Your task to perform on an android device: What's the weather today? Image 0: 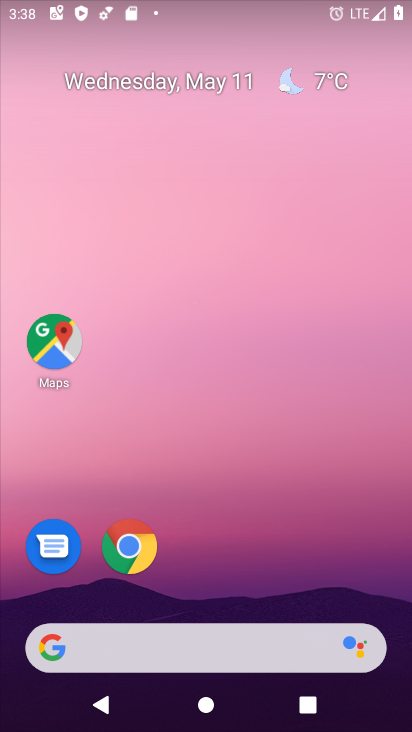
Step 0: drag from (291, 631) to (317, 53)
Your task to perform on an android device: What's the weather today? Image 1: 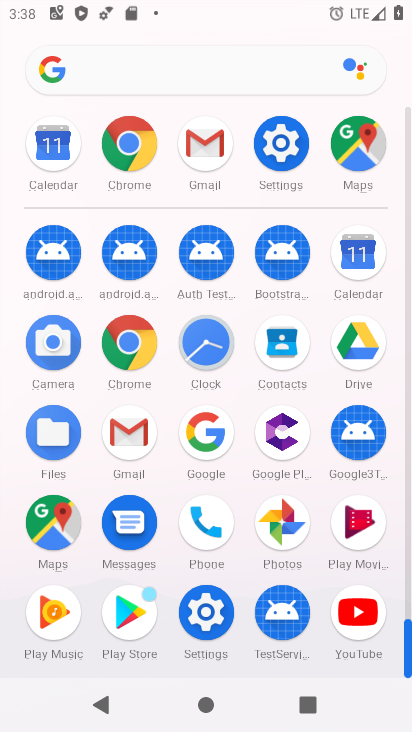
Step 1: click (133, 348)
Your task to perform on an android device: What's the weather today? Image 2: 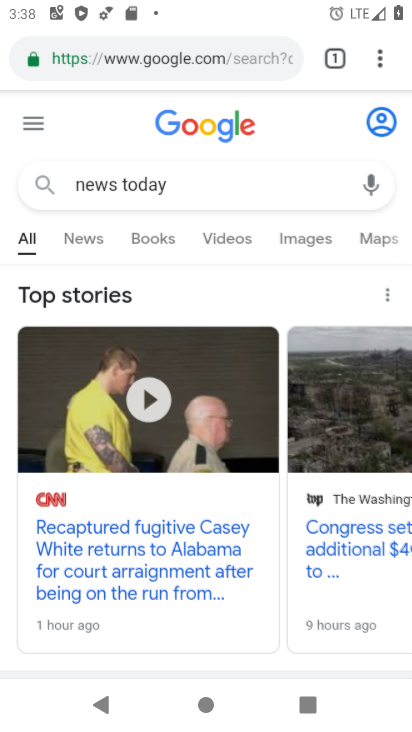
Step 2: click (254, 57)
Your task to perform on an android device: What's the weather today? Image 3: 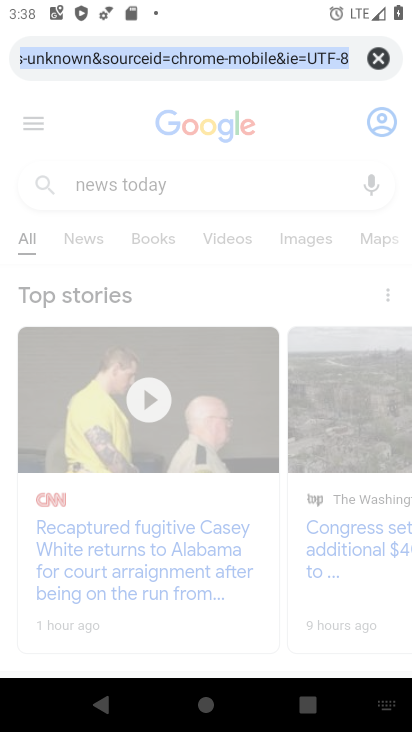
Step 3: click (377, 63)
Your task to perform on an android device: What's the weather today? Image 4: 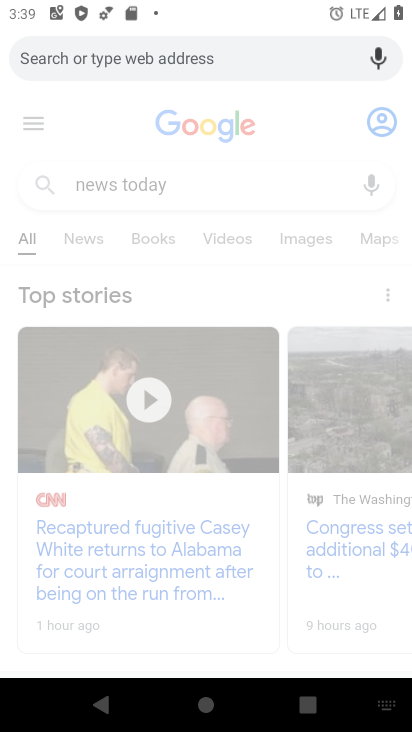
Step 4: click (186, 73)
Your task to perform on an android device: What's the weather today? Image 5: 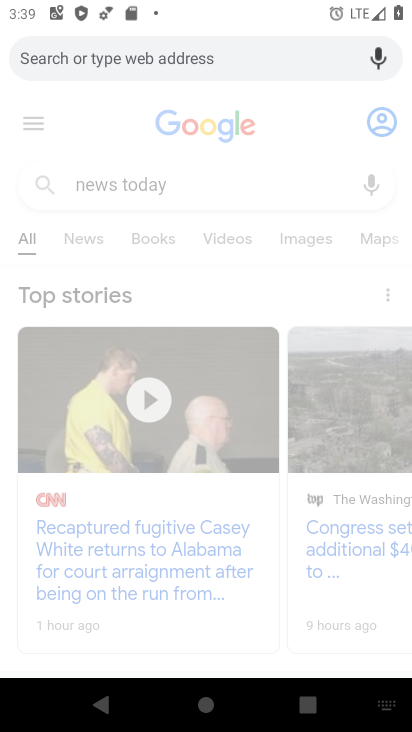
Step 5: type "whats the weather today"
Your task to perform on an android device: What's the weather today? Image 6: 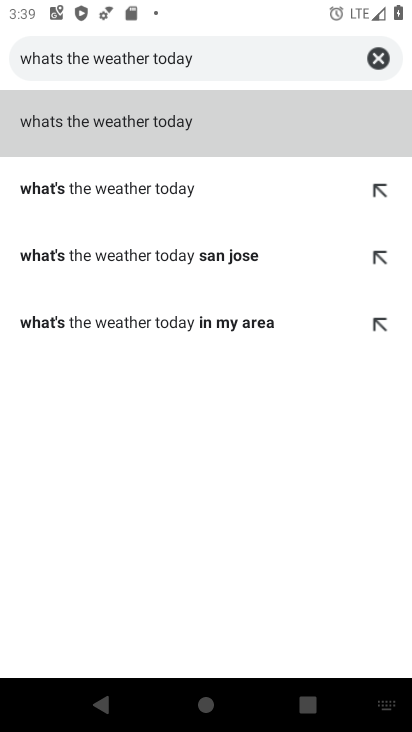
Step 6: click (102, 142)
Your task to perform on an android device: What's the weather today? Image 7: 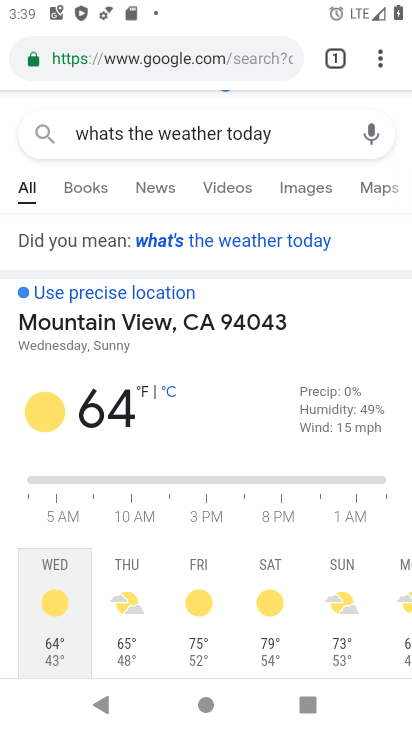
Step 7: task complete